Your task to perform on an android device: turn off improve location accuracy Image 0: 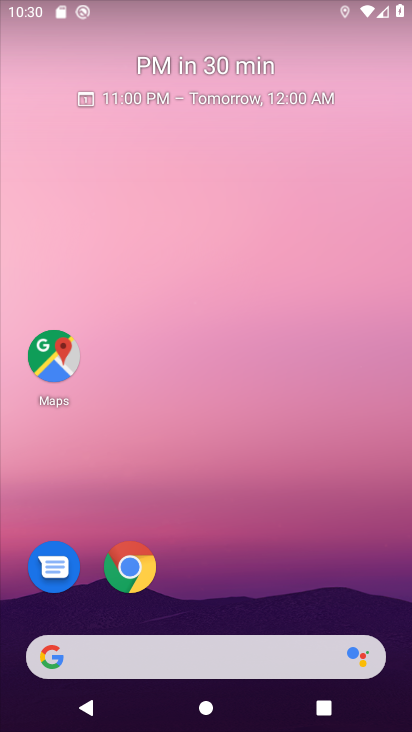
Step 0: drag from (202, 535) to (239, 6)
Your task to perform on an android device: turn off improve location accuracy Image 1: 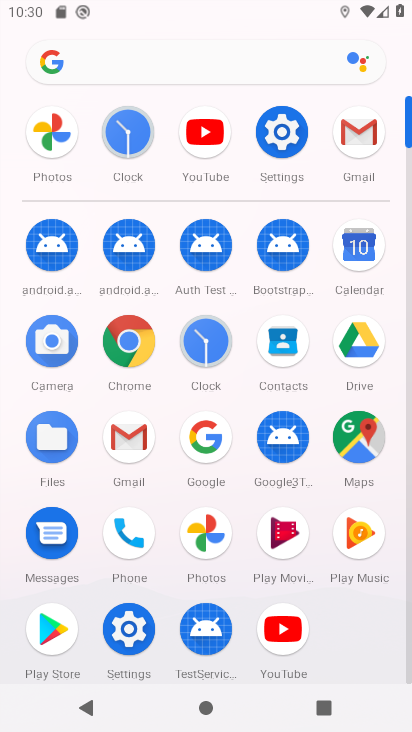
Step 1: click (279, 147)
Your task to perform on an android device: turn off improve location accuracy Image 2: 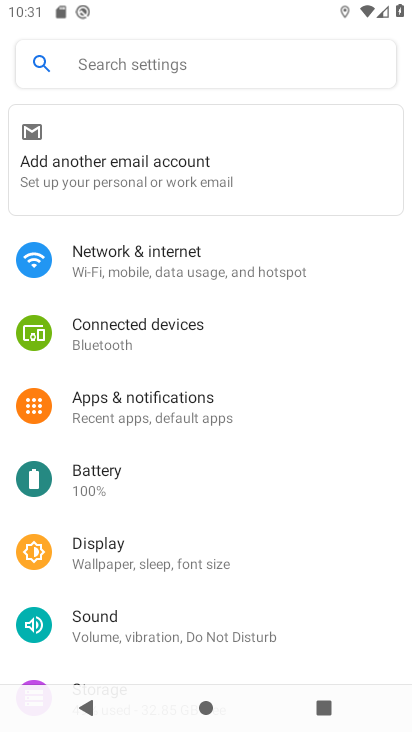
Step 2: drag from (157, 586) to (214, 86)
Your task to perform on an android device: turn off improve location accuracy Image 3: 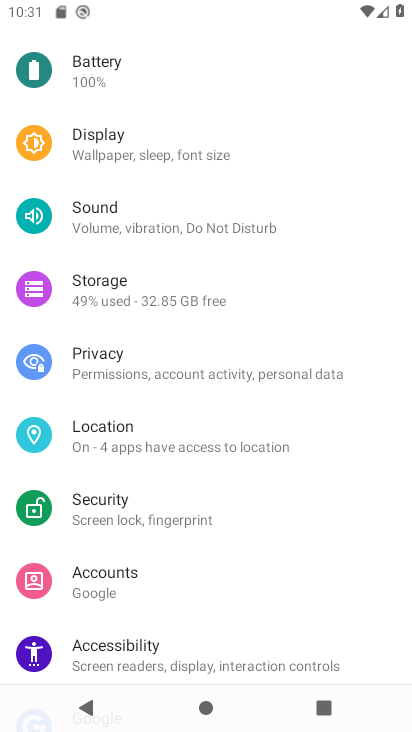
Step 3: click (151, 449)
Your task to perform on an android device: turn off improve location accuracy Image 4: 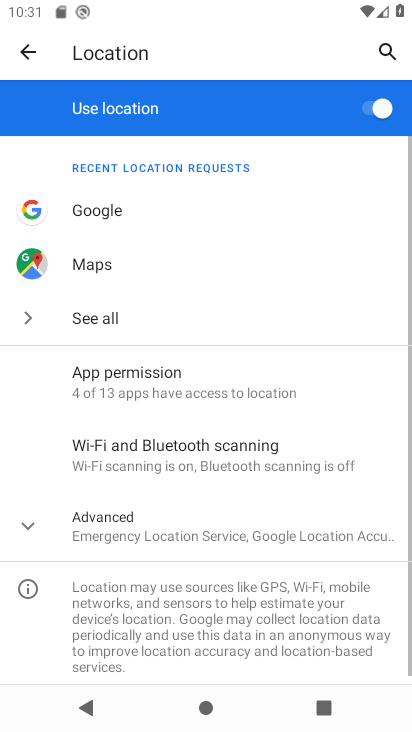
Step 4: click (143, 529)
Your task to perform on an android device: turn off improve location accuracy Image 5: 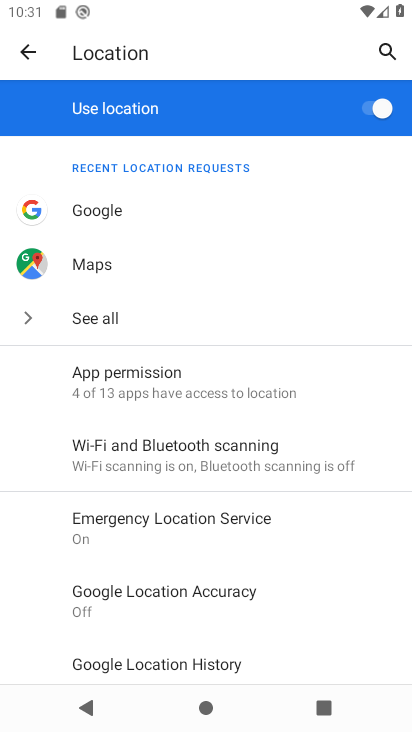
Step 5: click (155, 620)
Your task to perform on an android device: turn off improve location accuracy Image 6: 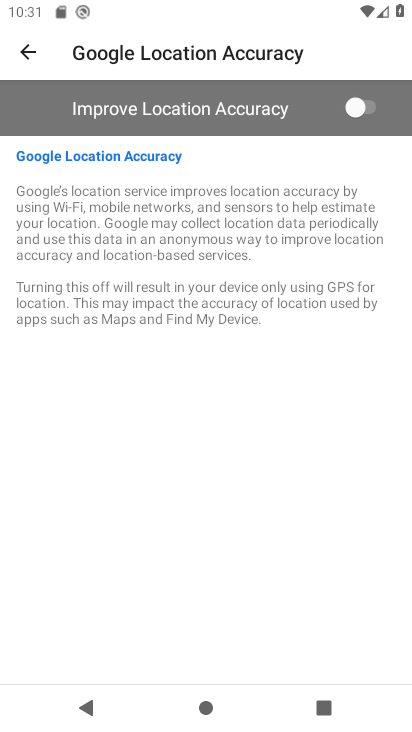
Step 6: task complete